Your task to perform on an android device: Go to Google Image 0: 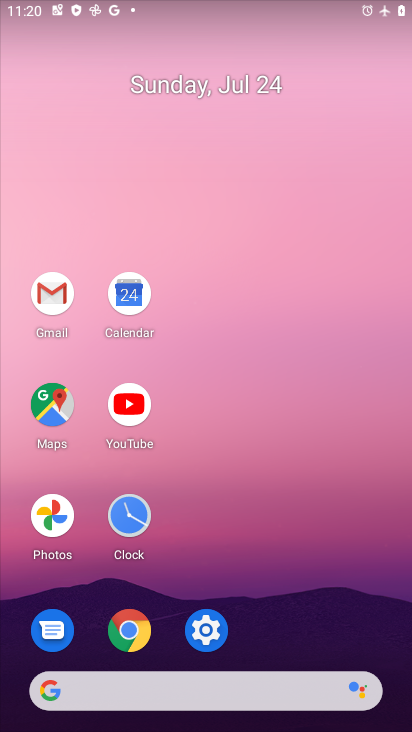
Step 0: click (43, 688)
Your task to perform on an android device: Go to Google Image 1: 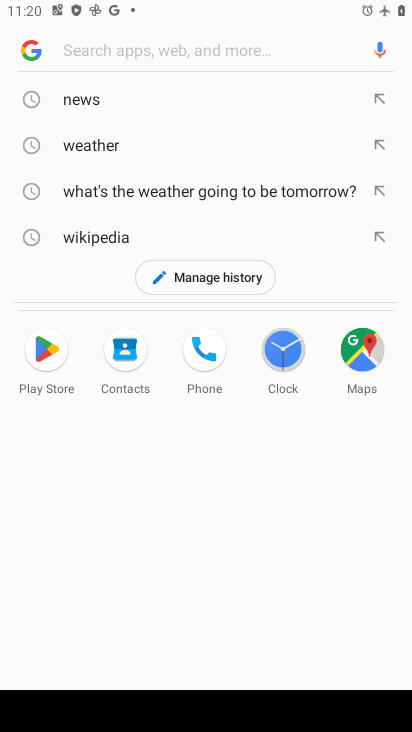
Step 1: click (35, 55)
Your task to perform on an android device: Go to Google Image 2: 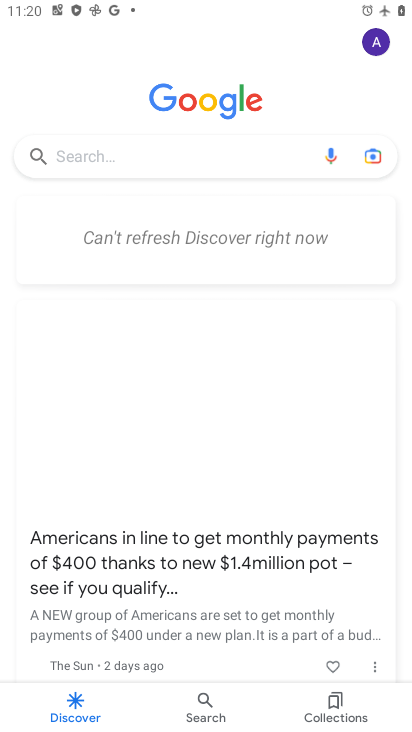
Step 2: task complete